Your task to perform on an android device: open device folders in google photos Image 0: 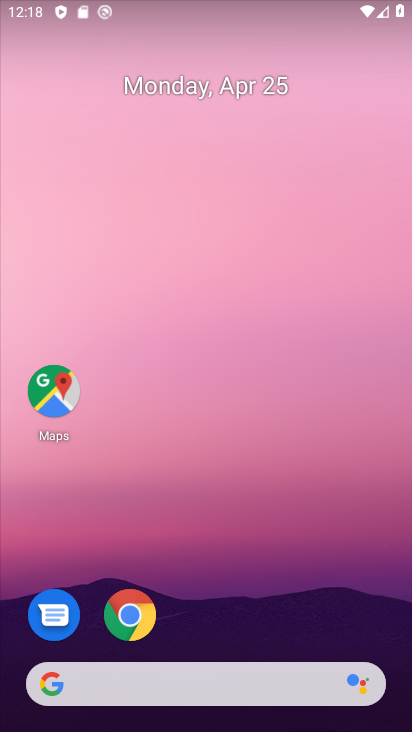
Step 0: click (294, 449)
Your task to perform on an android device: open device folders in google photos Image 1: 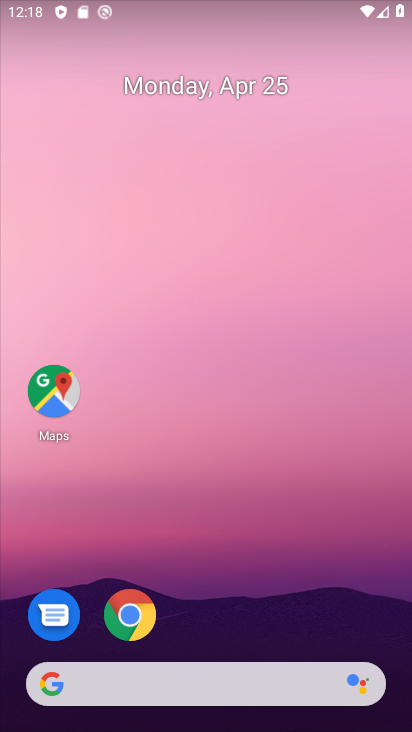
Step 1: drag from (217, 645) to (144, 13)
Your task to perform on an android device: open device folders in google photos Image 2: 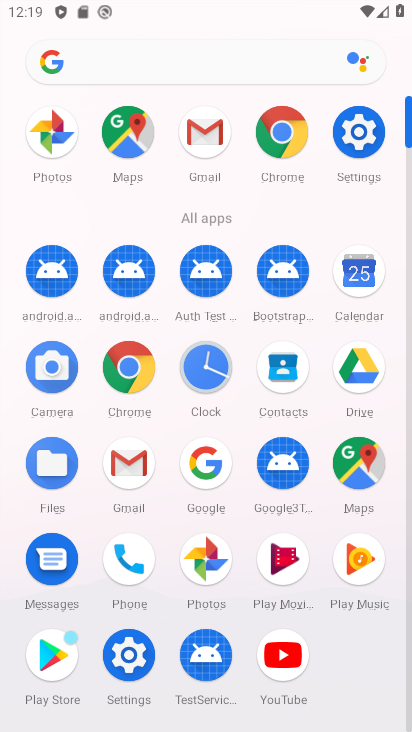
Step 2: click (213, 558)
Your task to perform on an android device: open device folders in google photos Image 3: 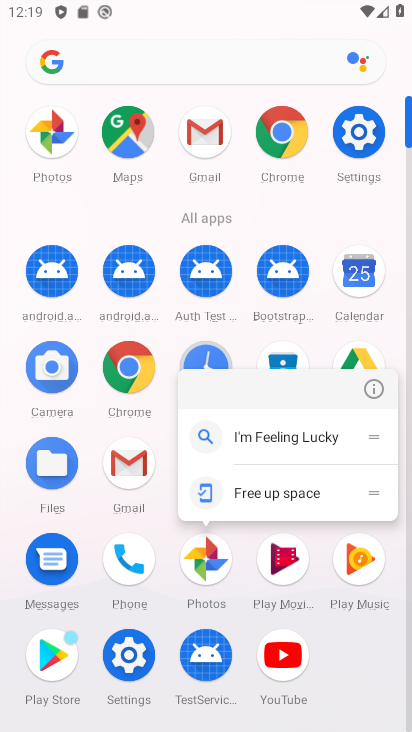
Step 3: click (209, 578)
Your task to perform on an android device: open device folders in google photos Image 4: 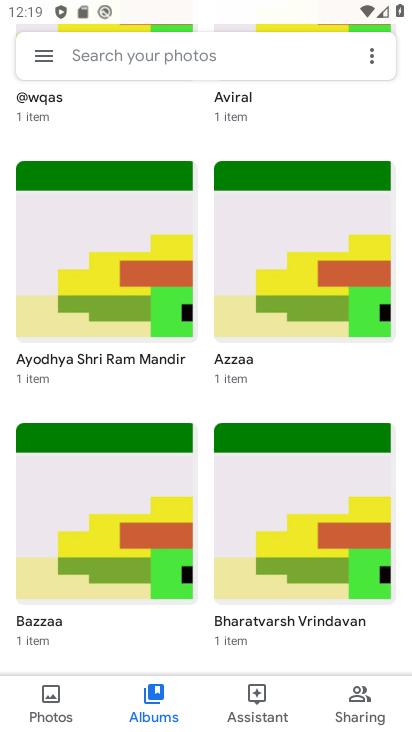
Step 4: click (38, 51)
Your task to perform on an android device: open device folders in google photos Image 5: 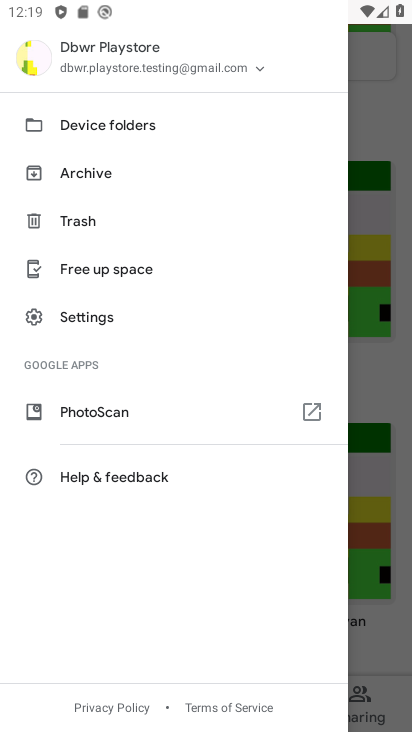
Step 5: click (57, 114)
Your task to perform on an android device: open device folders in google photos Image 6: 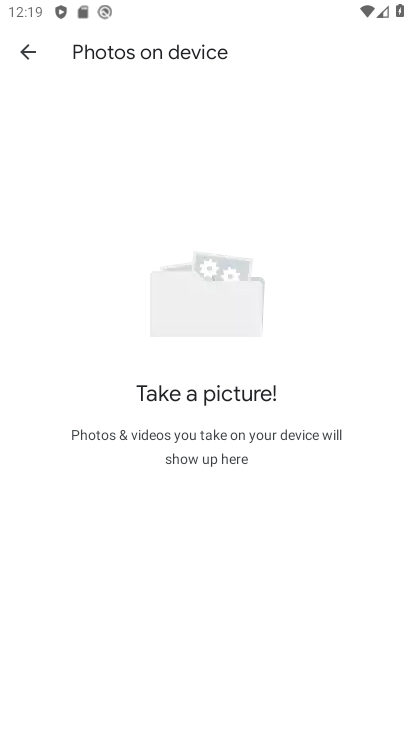
Step 6: task complete